Your task to perform on an android device: create a new album in the google photos Image 0: 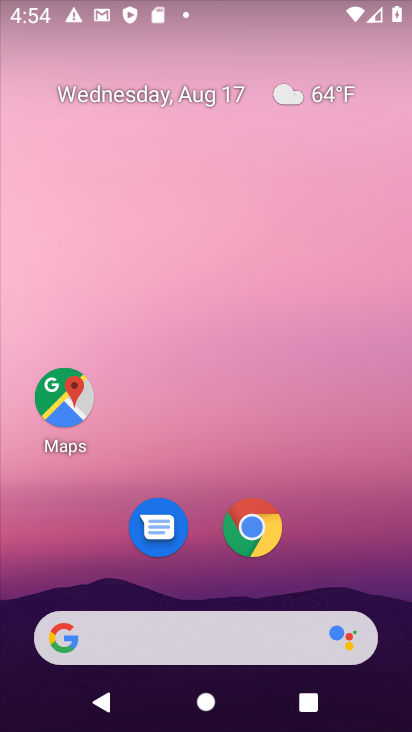
Step 0: drag from (169, 614) to (171, 223)
Your task to perform on an android device: create a new album in the google photos Image 1: 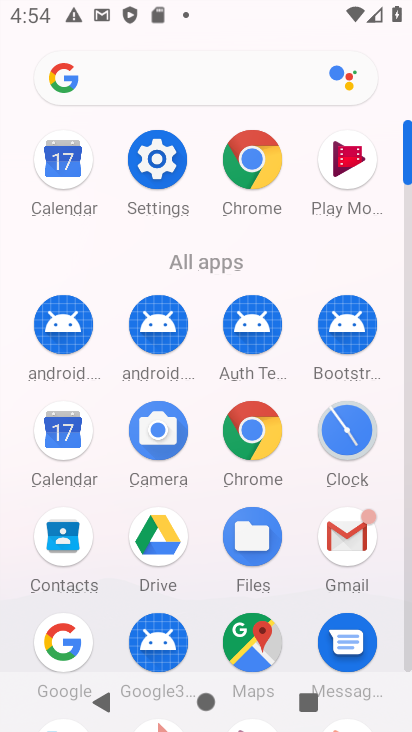
Step 1: drag from (186, 638) to (190, 348)
Your task to perform on an android device: create a new album in the google photos Image 2: 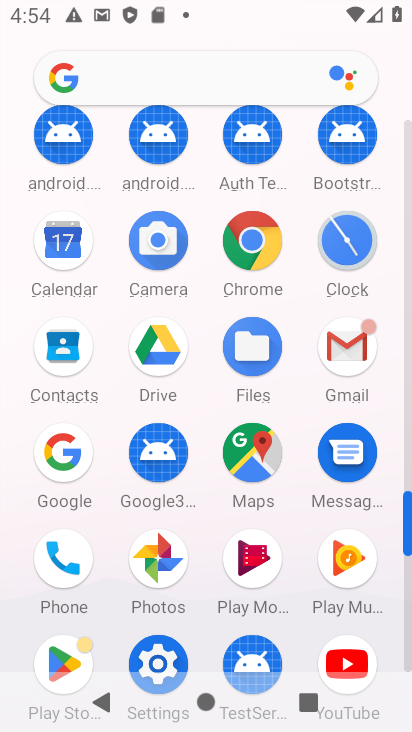
Step 2: click (154, 563)
Your task to perform on an android device: create a new album in the google photos Image 3: 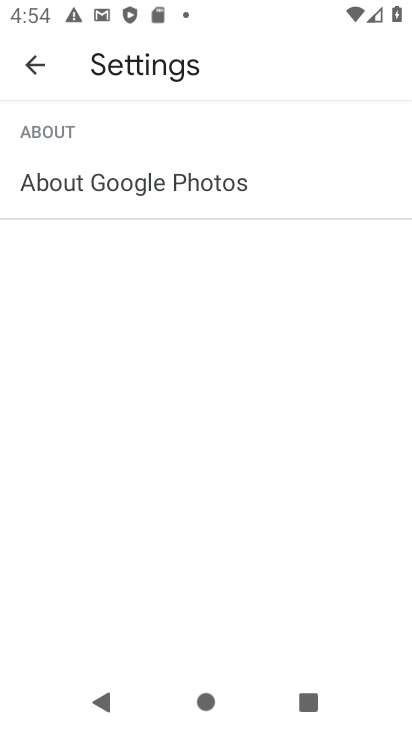
Step 3: click (28, 52)
Your task to perform on an android device: create a new album in the google photos Image 4: 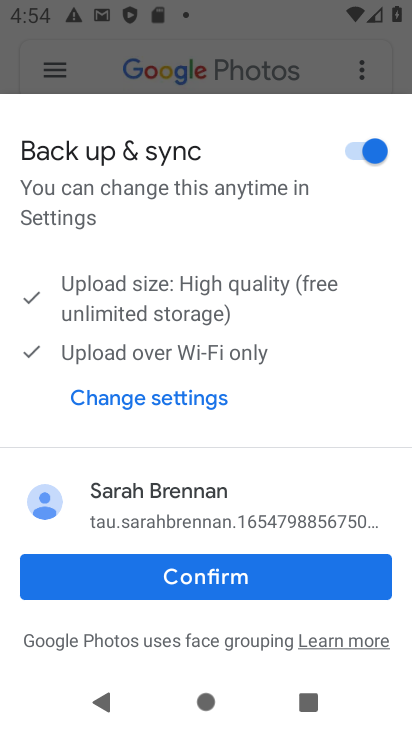
Step 4: click (215, 575)
Your task to perform on an android device: create a new album in the google photos Image 5: 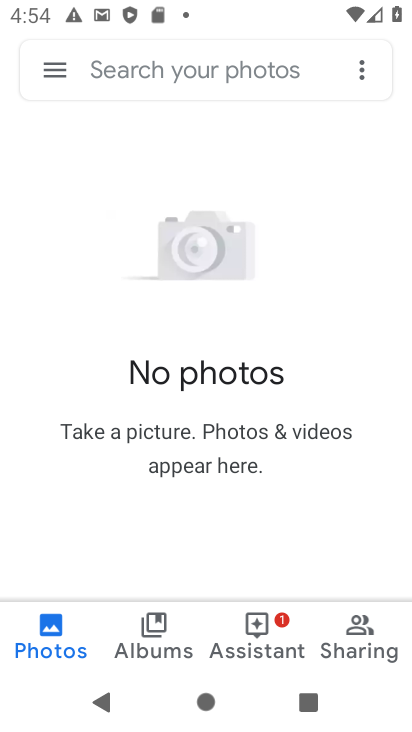
Step 5: task complete